Your task to perform on an android device: turn on airplane mode Image 0: 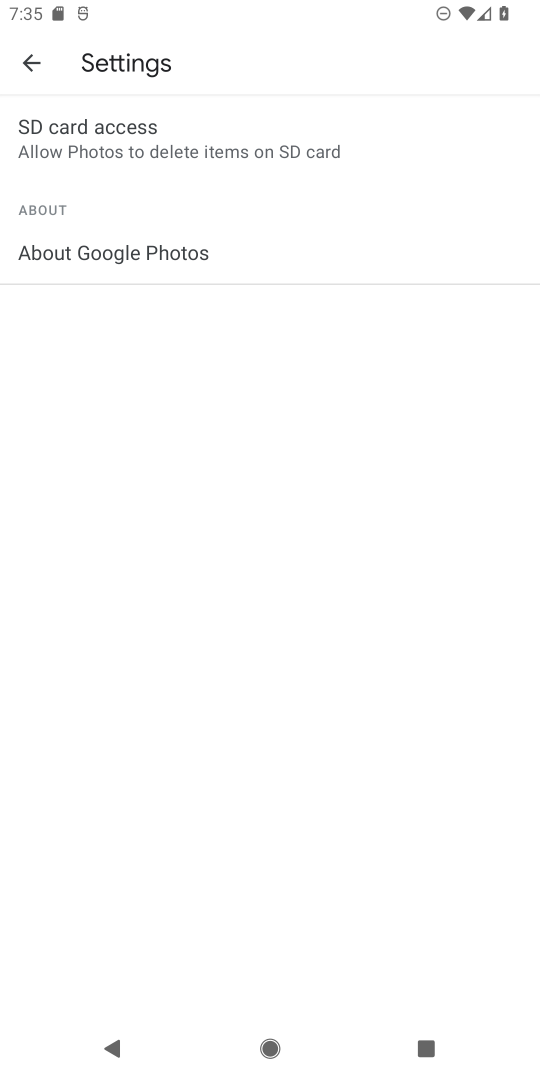
Step 0: press home button
Your task to perform on an android device: turn on airplane mode Image 1: 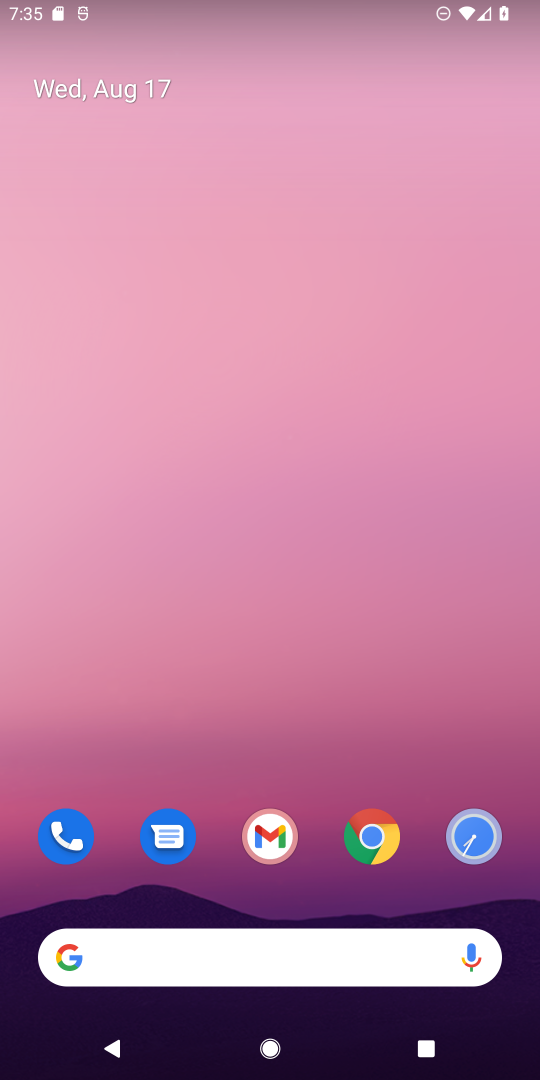
Step 1: drag from (202, 833) to (196, 345)
Your task to perform on an android device: turn on airplane mode Image 2: 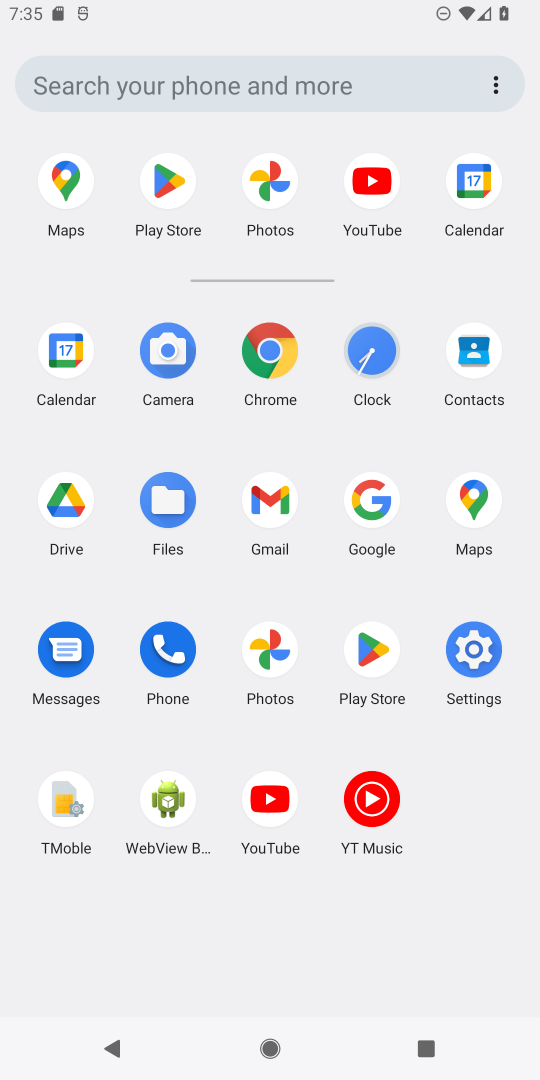
Step 2: click (478, 653)
Your task to perform on an android device: turn on airplane mode Image 3: 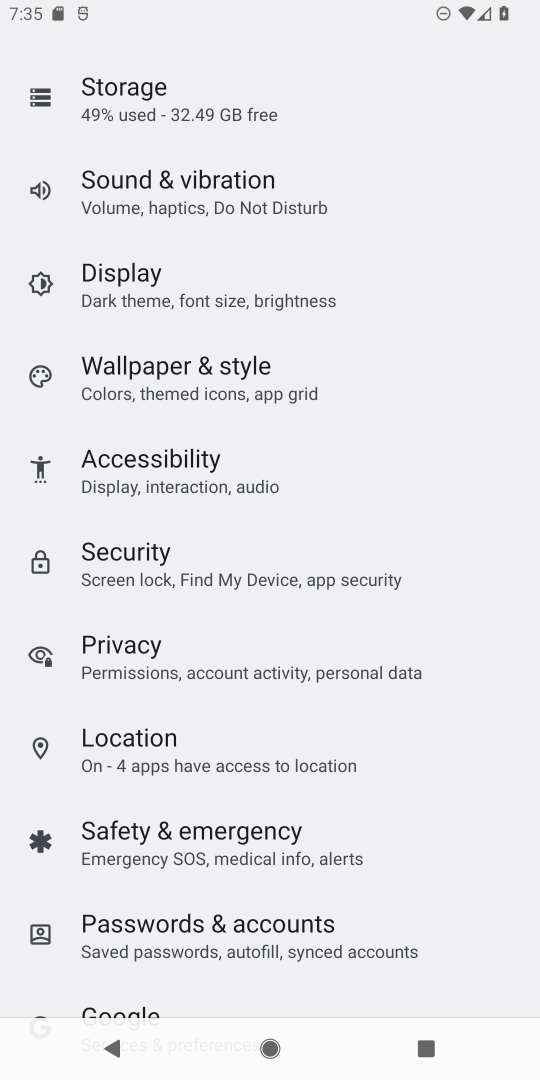
Step 3: drag from (216, 422) to (210, 809)
Your task to perform on an android device: turn on airplane mode Image 4: 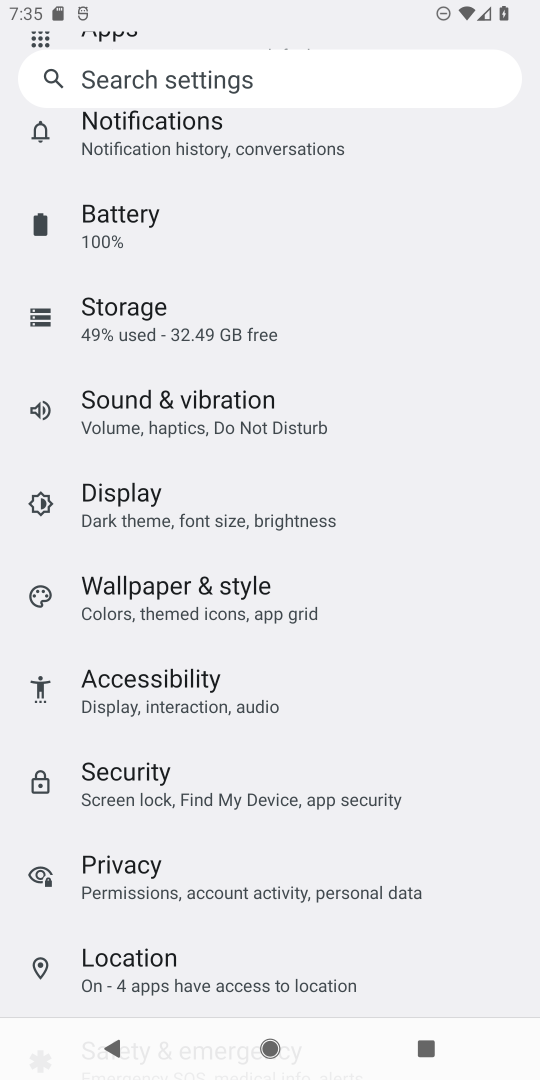
Step 4: drag from (178, 251) to (184, 886)
Your task to perform on an android device: turn on airplane mode Image 5: 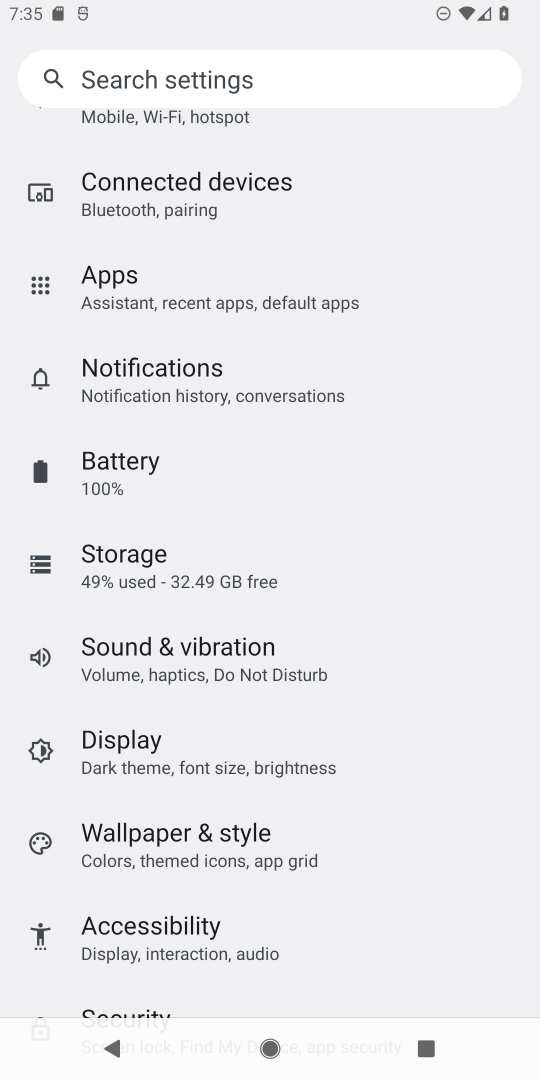
Step 5: drag from (227, 313) to (244, 950)
Your task to perform on an android device: turn on airplane mode Image 6: 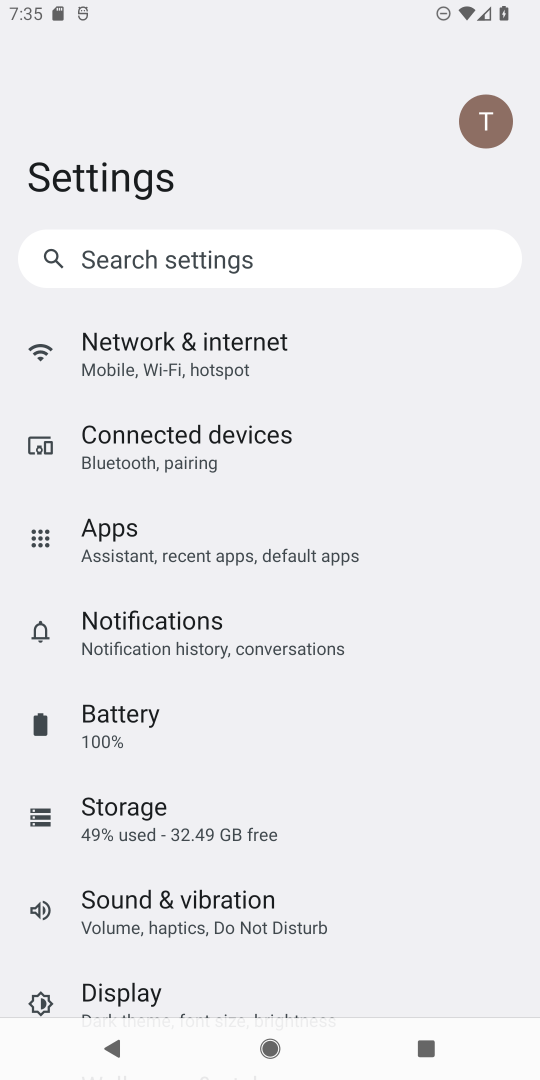
Step 6: click (229, 339)
Your task to perform on an android device: turn on airplane mode Image 7: 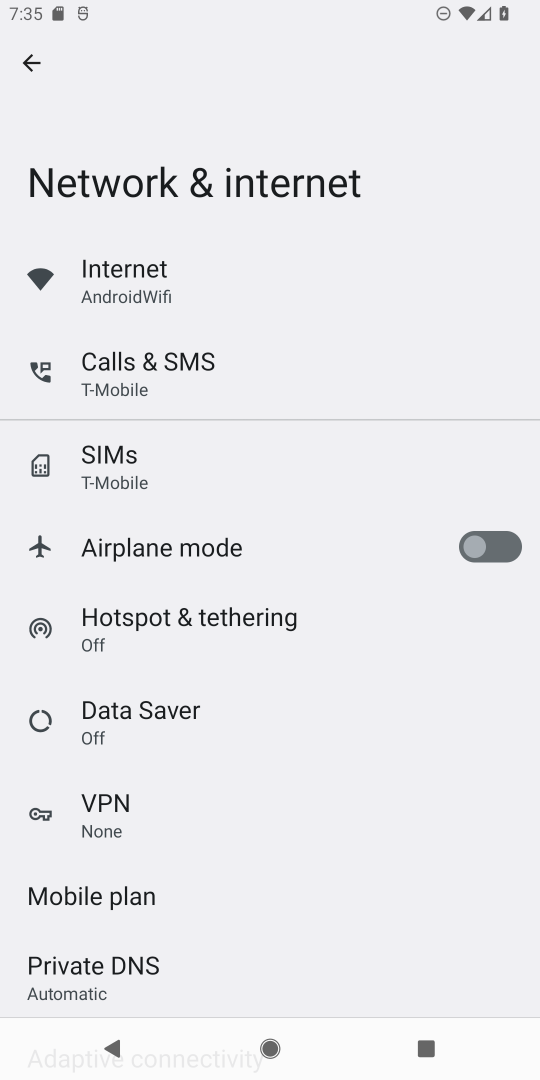
Step 7: click (508, 540)
Your task to perform on an android device: turn on airplane mode Image 8: 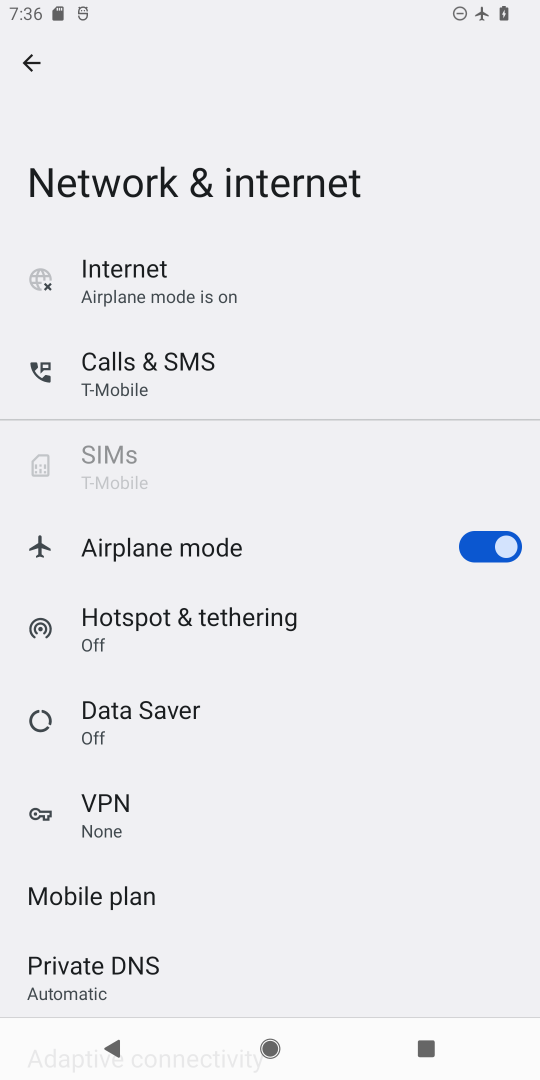
Step 8: task complete